Your task to perform on an android device: Turn off the flashlight Image 0: 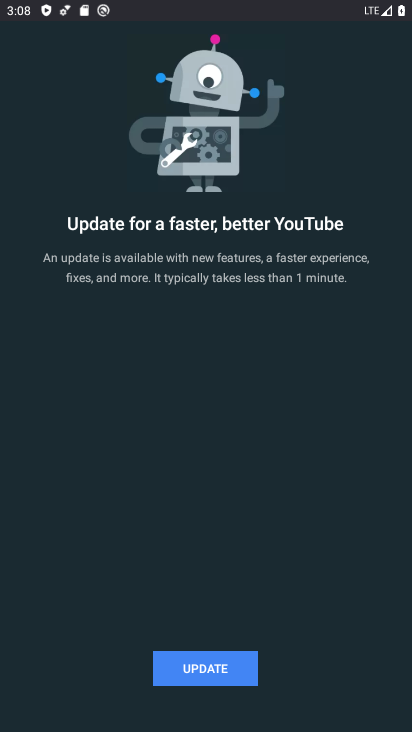
Step 0: press home button
Your task to perform on an android device: Turn off the flashlight Image 1: 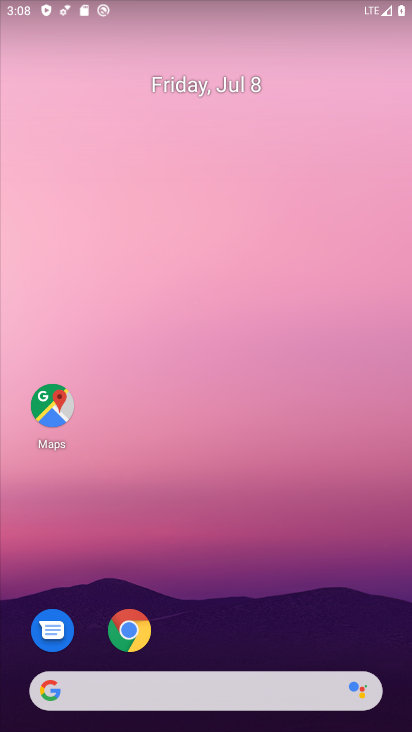
Step 1: drag from (304, 2) to (237, 404)
Your task to perform on an android device: Turn off the flashlight Image 2: 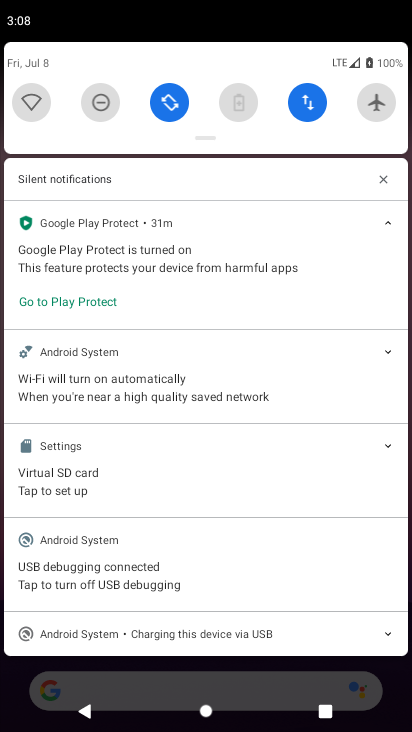
Step 2: drag from (215, 139) to (200, 382)
Your task to perform on an android device: Turn off the flashlight Image 3: 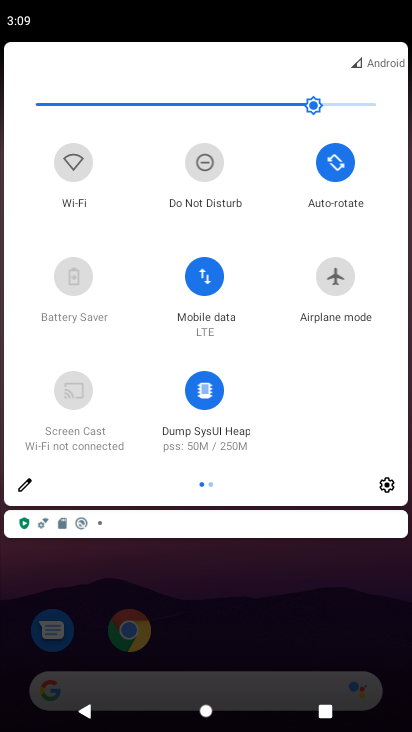
Step 3: drag from (374, 333) to (191, 299)
Your task to perform on an android device: Turn off the flashlight Image 4: 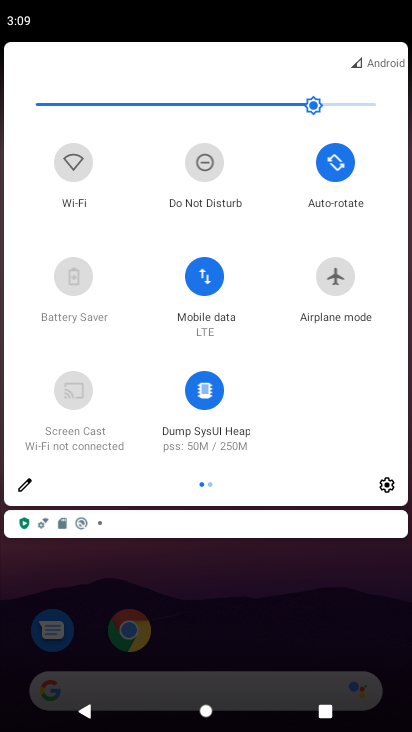
Step 4: drag from (294, 351) to (25, 319)
Your task to perform on an android device: Turn off the flashlight Image 5: 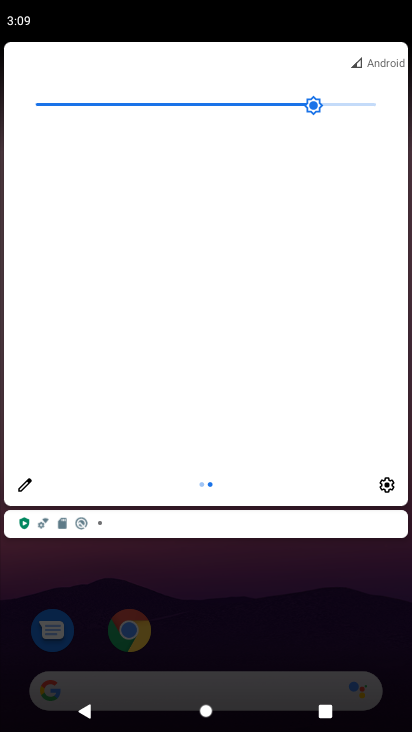
Step 5: click (387, 492)
Your task to perform on an android device: Turn off the flashlight Image 6: 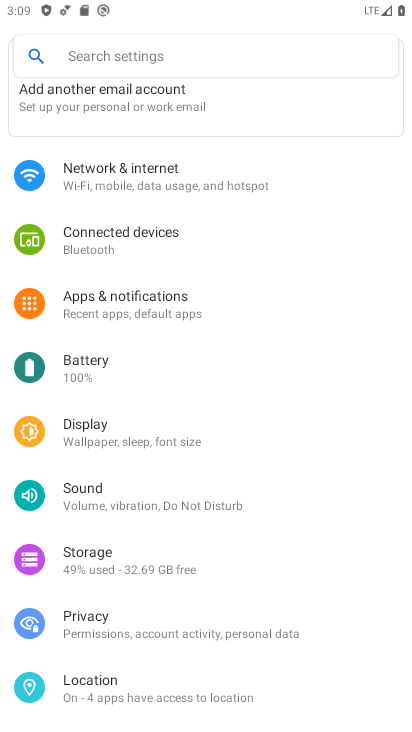
Step 6: click (154, 49)
Your task to perform on an android device: Turn off the flashlight Image 7: 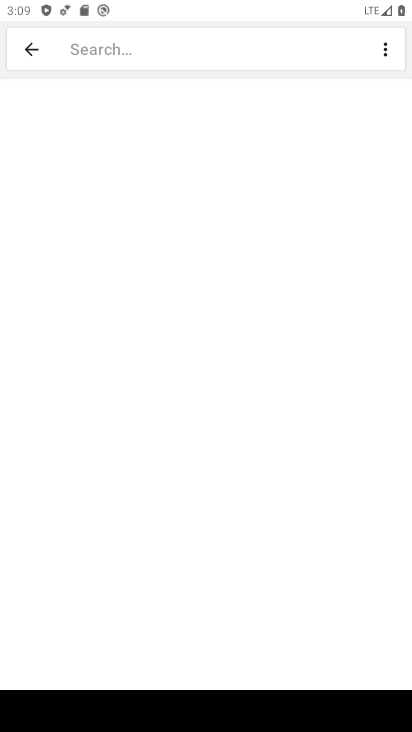
Step 7: press enter
Your task to perform on an android device: Turn off the flashlight Image 8: 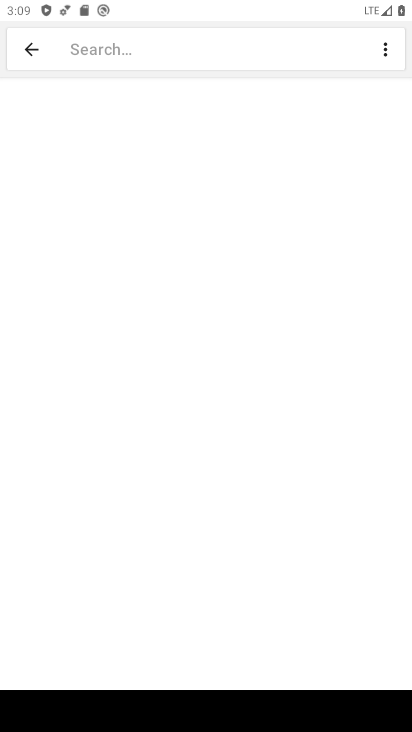
Step 8: type "flash light"
Your task to perform on an android device: Turn off the flashlight Image 9: 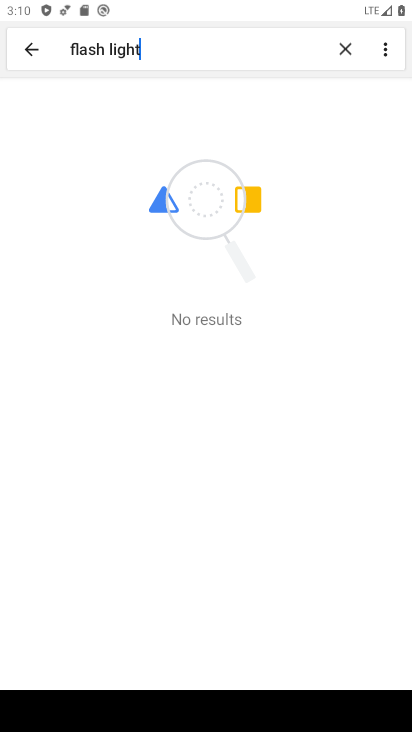
Step 9: task complete